Your task to perform on an android device: Go to location settings Image 0: 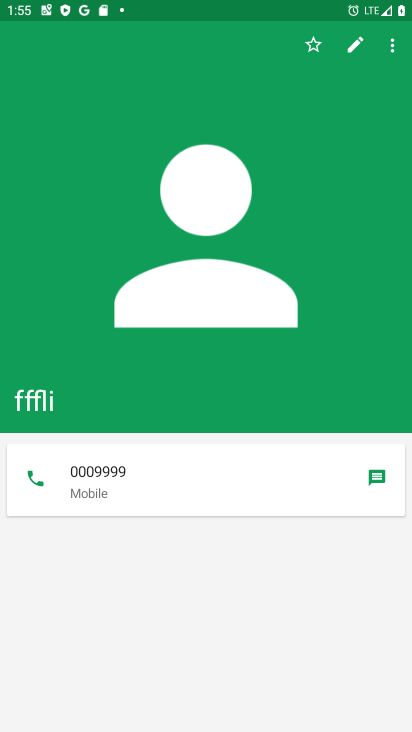
Step 0: press home button
Your task to perform on an android device: Go to location settings Image 1: 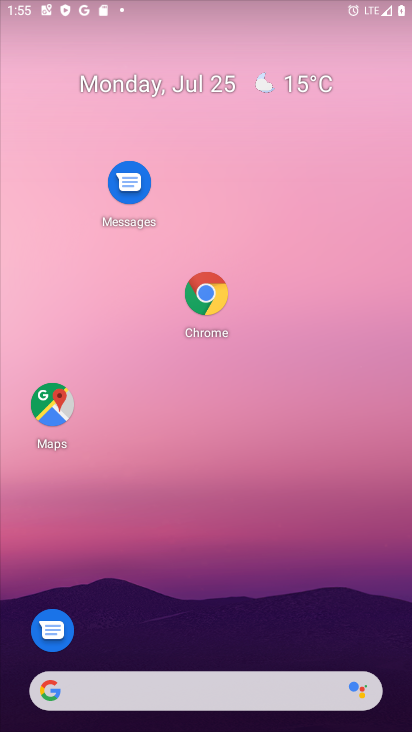
Step 1: drag from (291, 617) to (312, 31)
Your task to perform on an android device: Go to location settings Image 2: 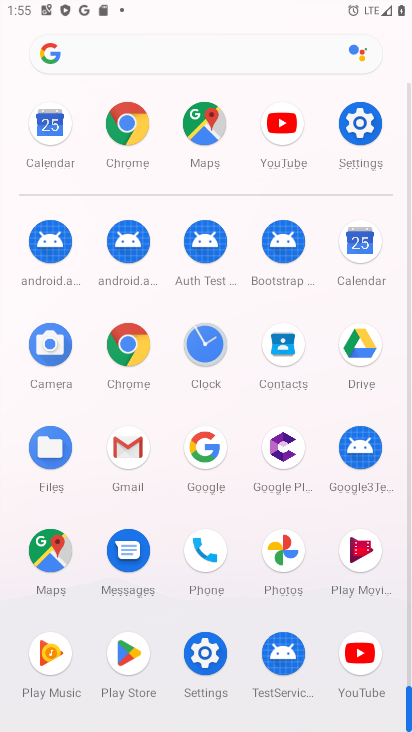
Step 2: click (206, 654)
Your task to perform on an android device: Go to location settings Image 3: 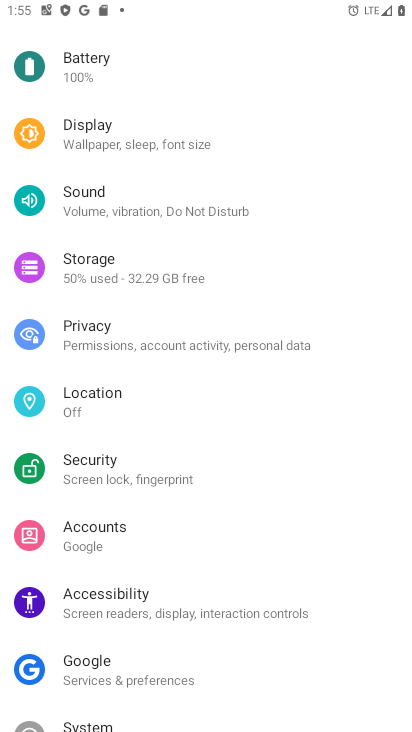
Step 3: click (100, 407)
Your task to perform on an android device: Go to location settings Image 4: 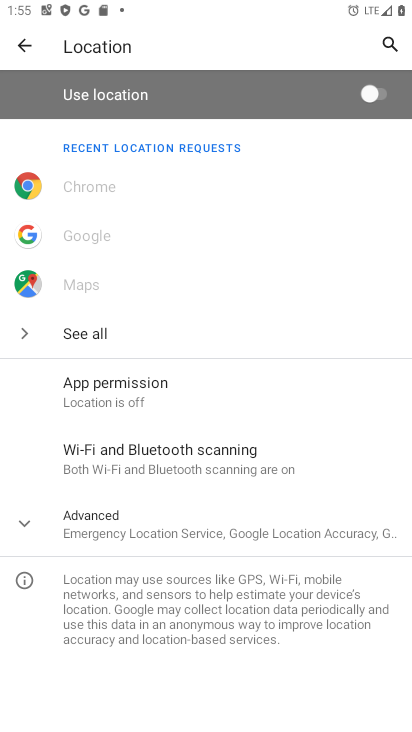
Step 4: task complete